Your task to perform on an android device: turn off location Image 0: 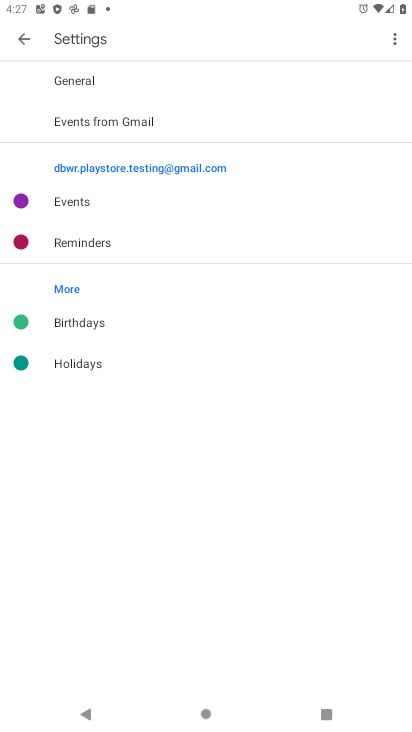
Step 0: press home button
Your task to perform on an android device: turn off location Image 1: 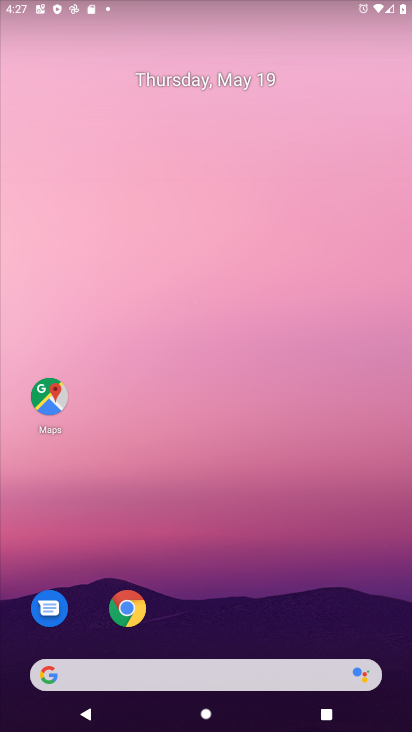
Step 1: drag from (229, 605) to (207, 106)
Your task to perform on an android device: turn off location Image 2: 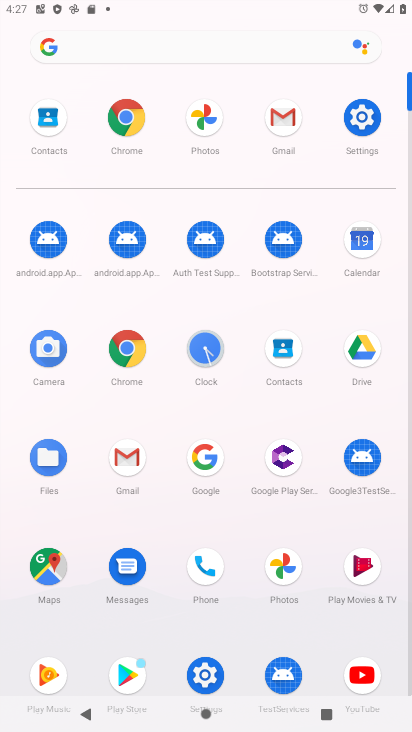
Step 2: click (345, 127)
Your task to perform on an android device: turn off location Image 3: 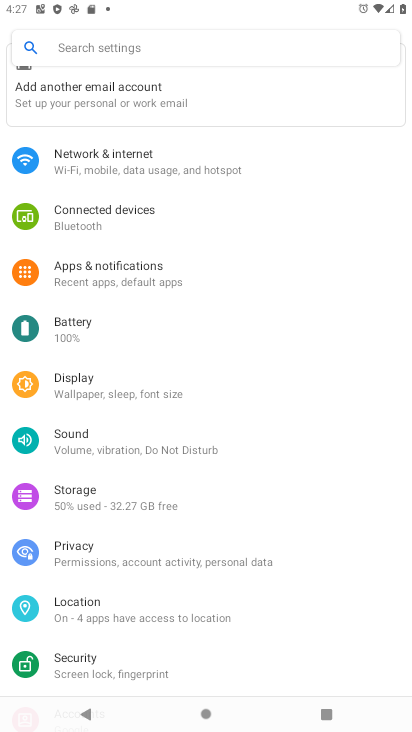
Step 3: click (144, 611)
Your task to perform on an android device: turn off location Image 4: 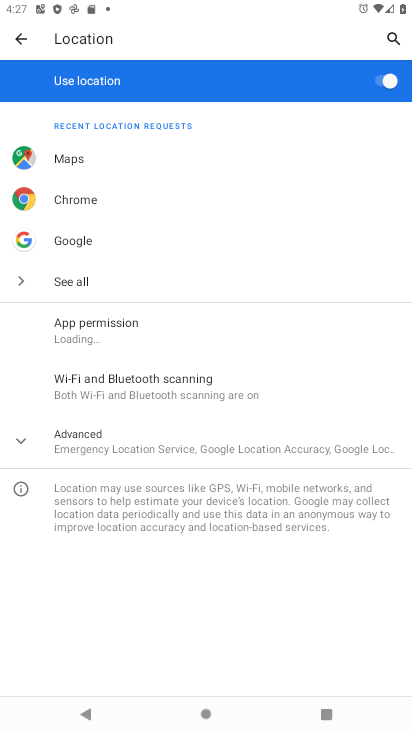
Step 4: click (379, 76)
Your task to perform on an android device: turn off location Image 5: 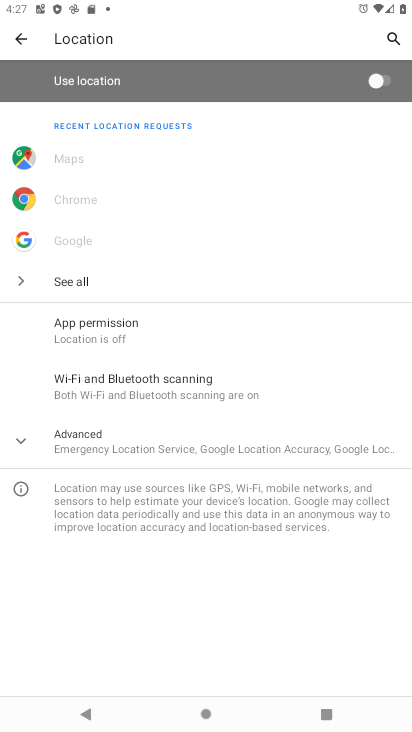
Step 5: task complete